Your task to perform on an android device: Go to location settings Image 0: 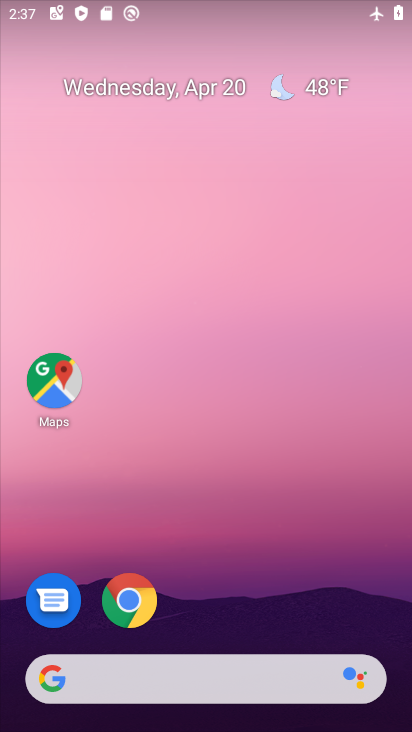
Step 0: drag from (326, 522) to (317, 152)
Your task to perform on an android device: Go to location settings Image 1: 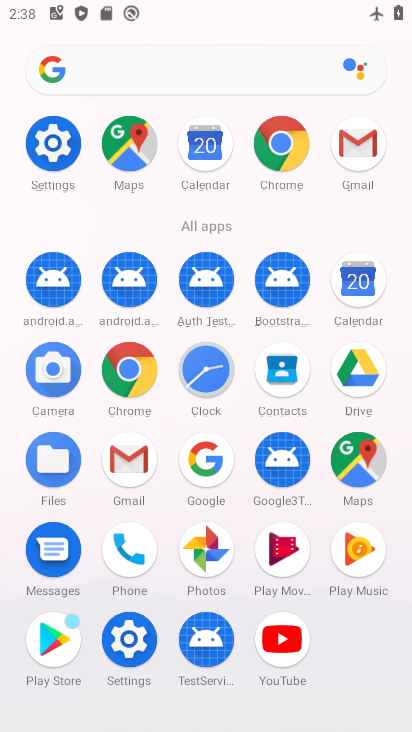
Step 1: click (49, 143)
Your task to perform on an android device: Go to location settings Image 2: 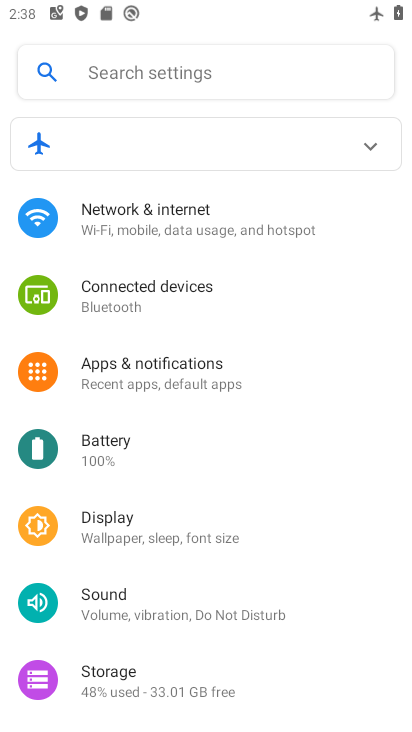
Step 2: click (49, 143)
Your task to perform on an android device: Go to location settings Image 3: 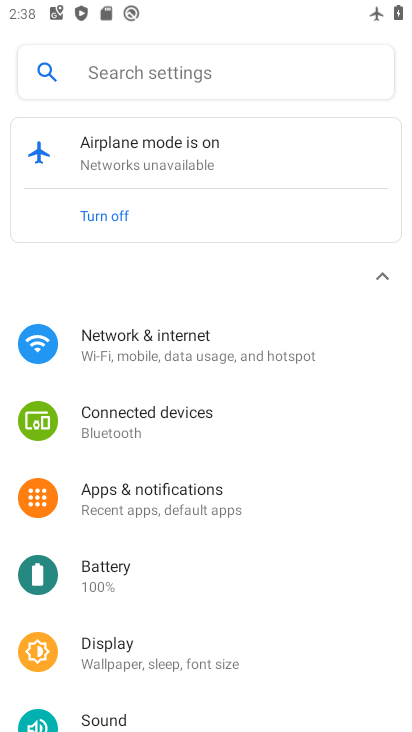
Step 3: drag from (171, 585) to (233, 277)
Your task to perform on an android device: Go to location settings Image 4: 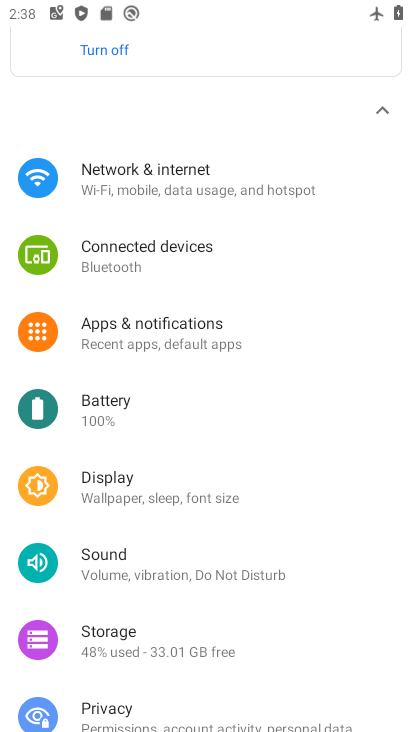
Step 4: drag from (185, 586) to (271, 238)
Your task to perform on an android device: Go to location settings Image 5: 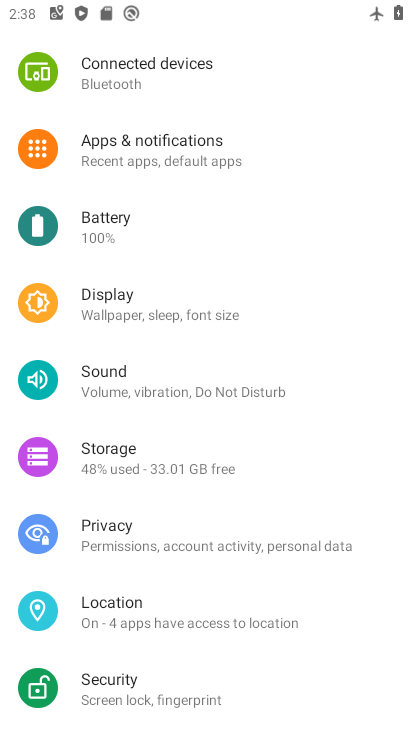
Step 5: click (106, 615)
Your task to perform on an android device: Go to location settings Image 6: 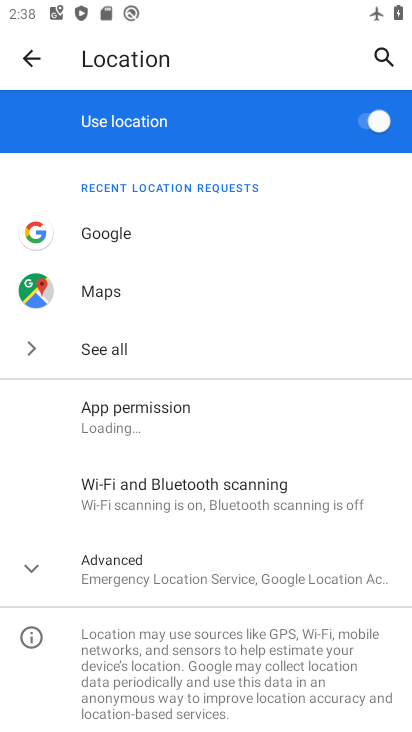
Step 6: task complete